Your task to perform on an android device: check storage Image 0: 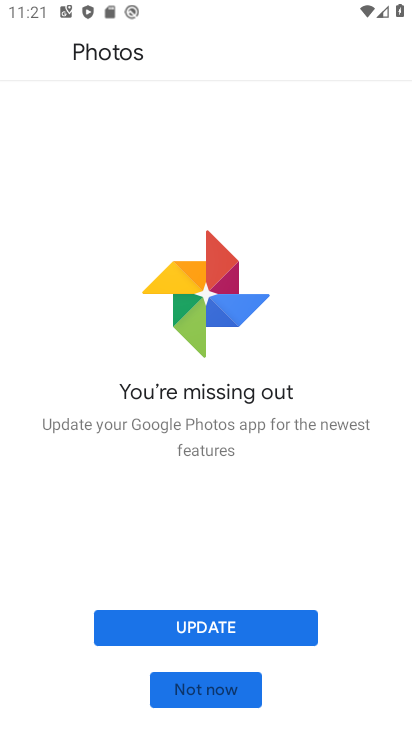
Step 0: press home button
Your task to perform on an android device: check storage Image 1: 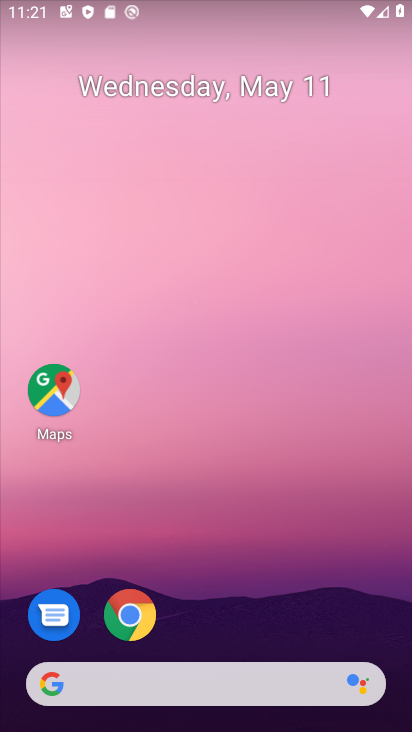
Step 1: drag from (243, 513) to (338, 48)
Your task to perform on an android device: check storage Image 2: 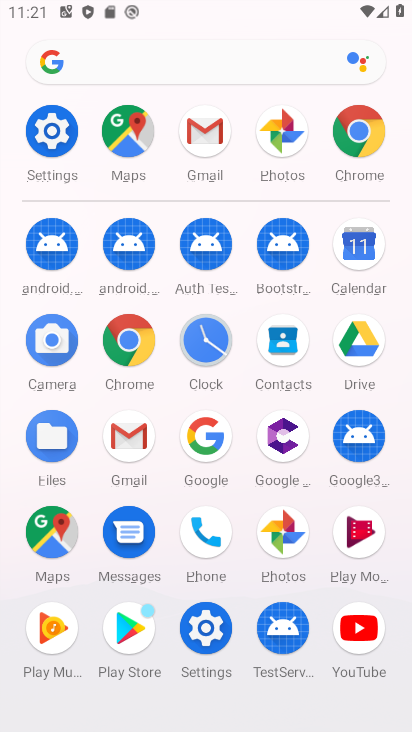
Step 2: click (53, 130)
Your task to perform on an android device: check storage Image 3: 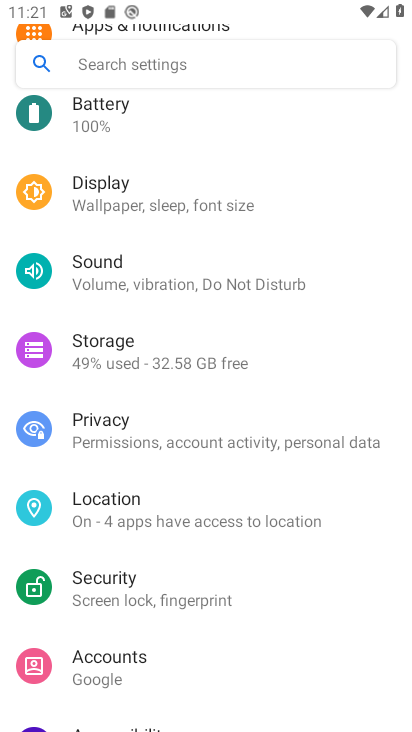
Step 3: click (113, 341)
Your task to perform on an android device: check storage Image 4: 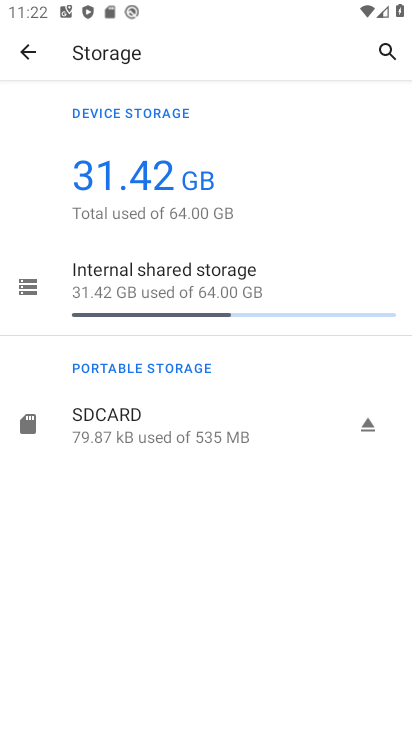
Step 4: task complete